Your task to perform on an android device: What is the news today? Image 0: 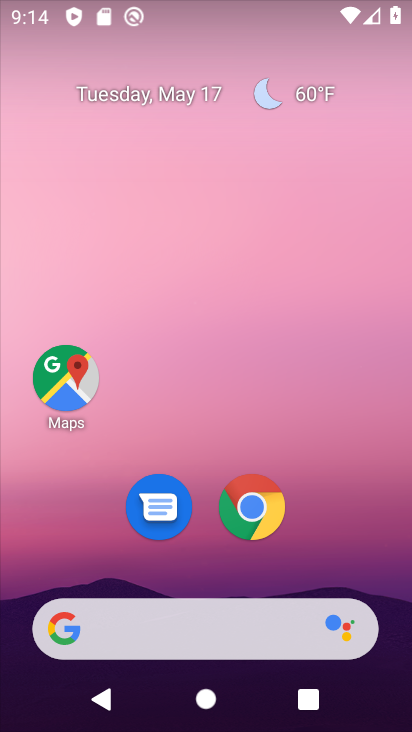
Step 0: drag from (371, 653) to (271, 258)
Your task to perform on an android device: What is the news today? Image 1: 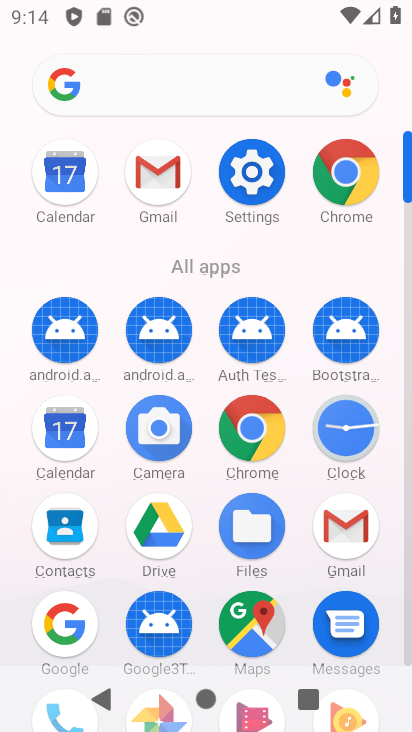
Step 1: press back button
Your task to perform on an android device: What is the news today? Image 2: 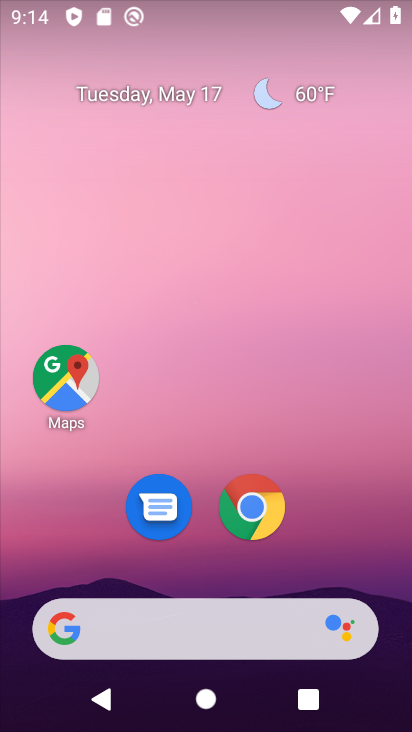
Step 2: drag from (9, 209) to (389, 372)
Your task to perform on an android device: What is the news today? Image 3: 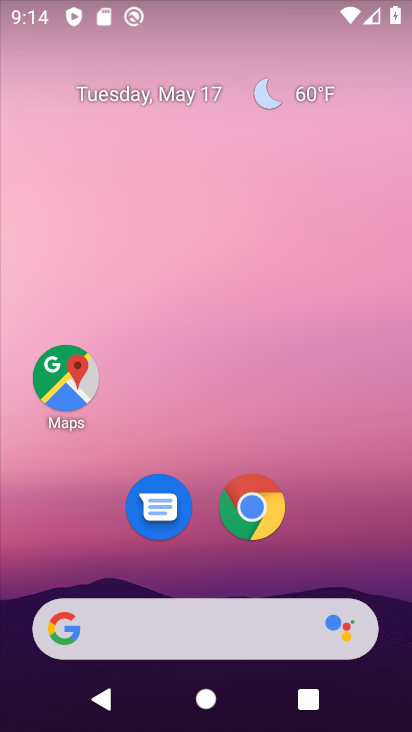
Step 3: drag from (70, 253) to (331, 386)
Your task to perform on an android device: What is the news today? Image 4: 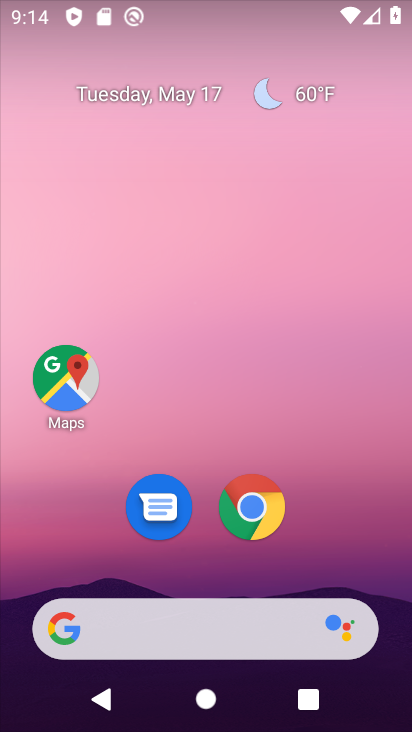
Step 4: drag from (33, 171) to (378, 350)
Your task to perform on an android device: What is the news today? Image 5: 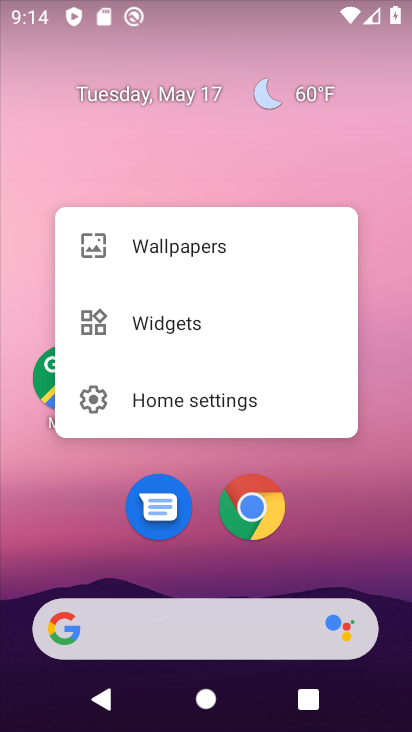
Step 5: drag from (13, 190) to (235, 333)
Your task to perform on an android device: What is the news today? Image 6: 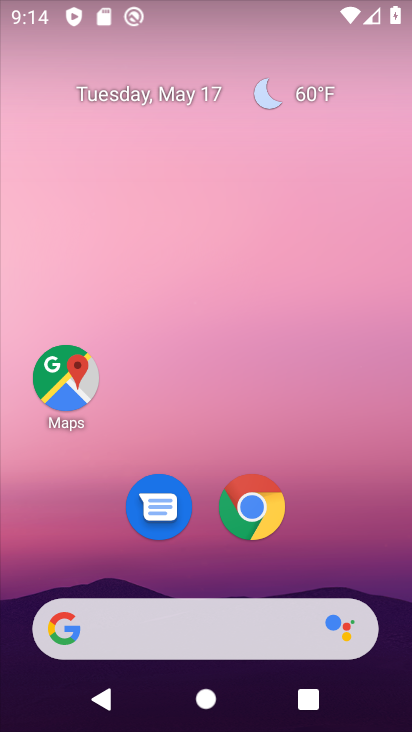
Step 6: click (95, 130)
Your task to perform on an android device: What is the news today? Image 7: 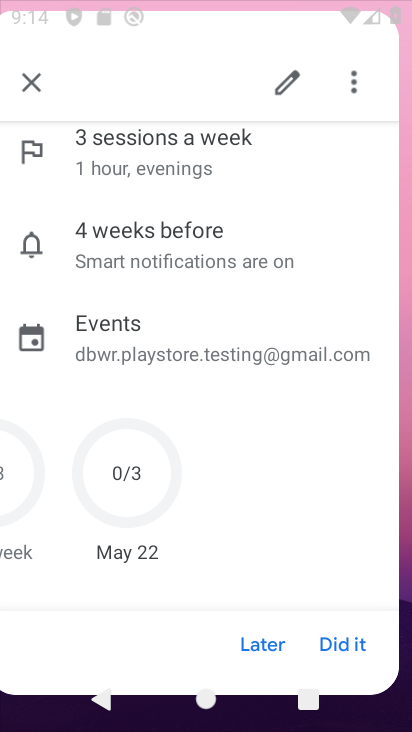
Step 7: drag from (16, 199) to (382, 475)
Your task to perform on an android device: What is the news today? Image 8: 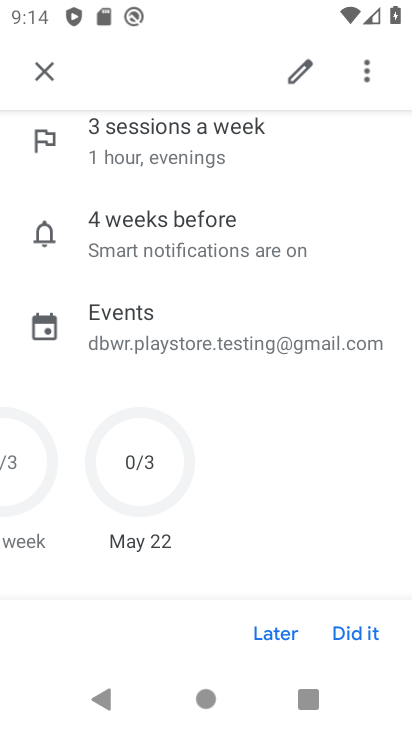
Step 8: click (50, 75)
Your task to perform on an android device: What is the news today? Image 9: 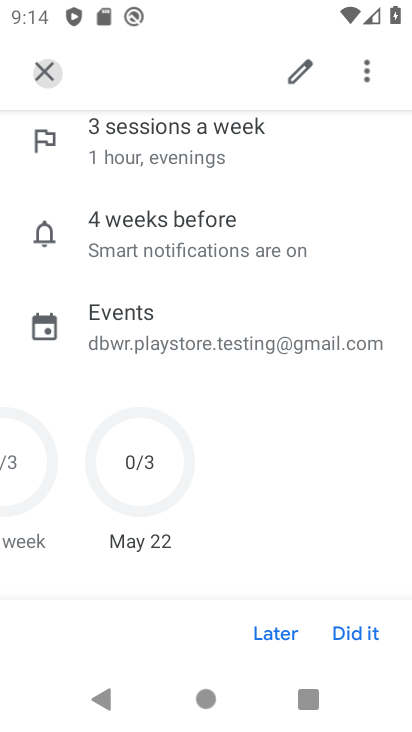
Step 9: click (50, 75)
Your task to perform on an android device: What is the news today? Image 10: 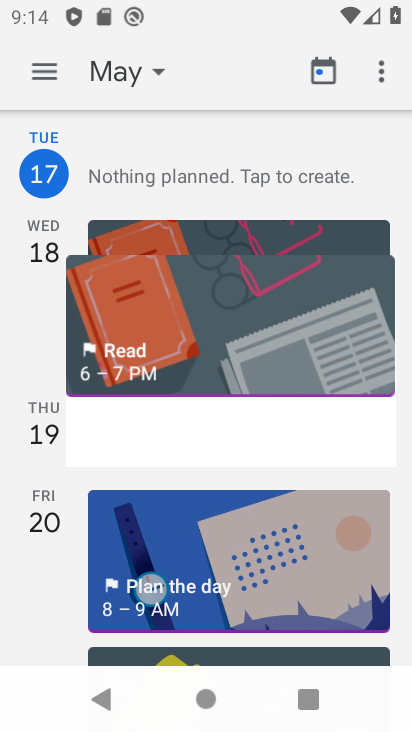
Step 10: click (50, 75)
Your task to perform on an android device: What is the news today? Image 11: 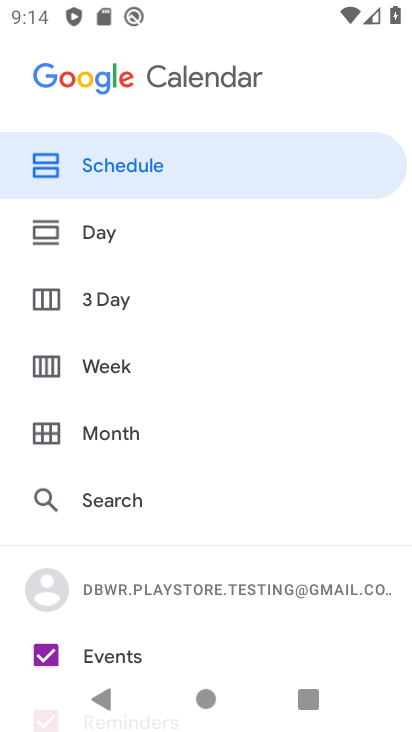
Step 11: press back button
Your task to perform on an android device: What is the news today? Image 12: 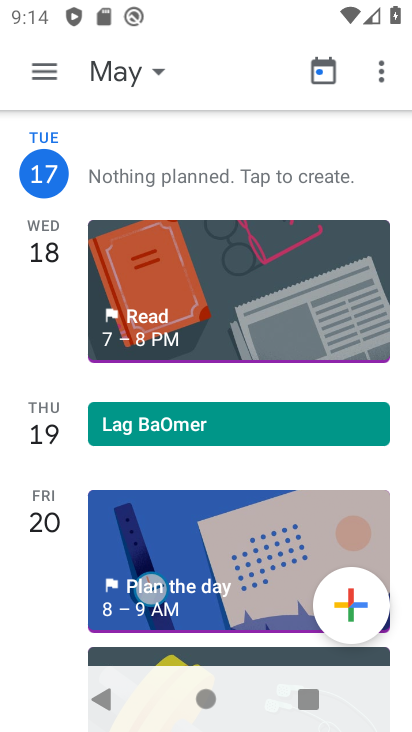
Step 12: press home button
Your task to perform on an android device: What is the news today? Image 13: 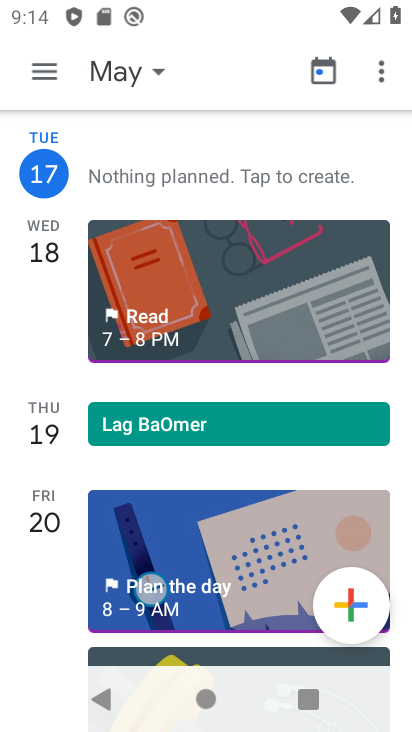
Step 13: press home button
Your task to perform on an android device: What is the news today? Image 14: 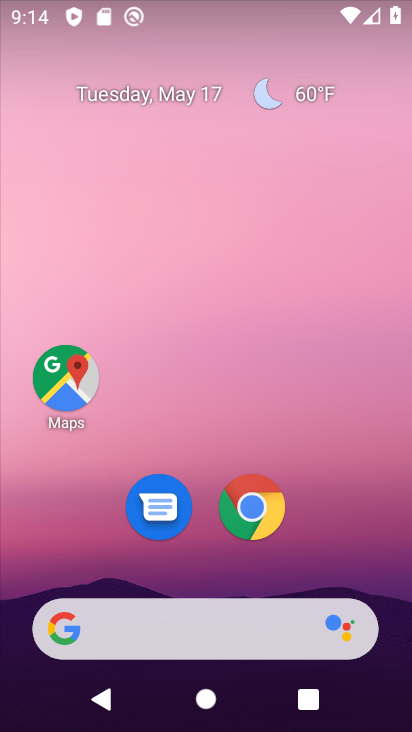
Step 14: drag from (3, 173) to (406, 385)
Your task to perform on an android device: What is the news today? Image 15: 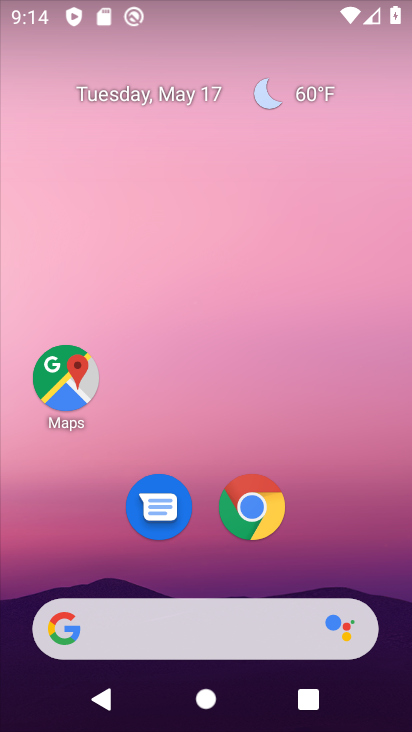
Step 15: drag from (0, 195) to (207, 439)
Your task to perform on an android device: What is the news today? Image 16: 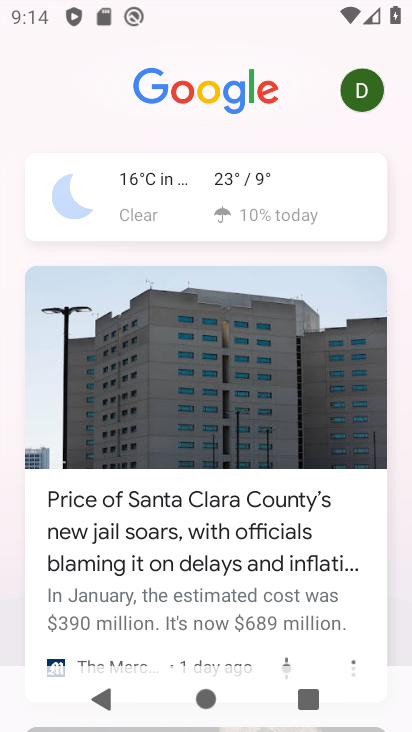
Step 16: drag from (211, 355) to (337, 517)
Your task to perform on an android device: What is the news today? Image 17: 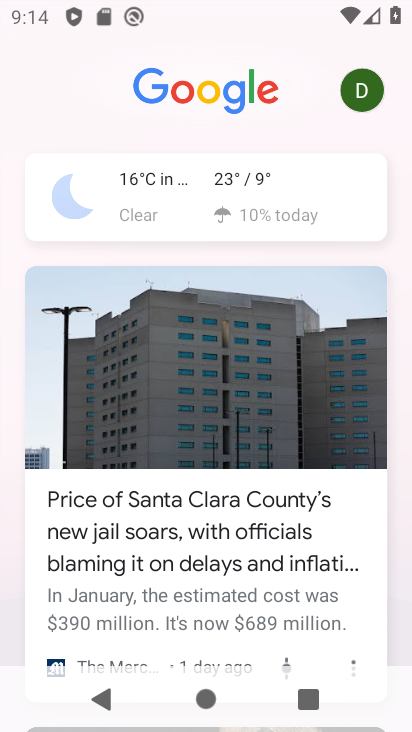
Step 17: drag from (173, 555) to (264, 296)
Your task to perform on an android device: What is the news today? Image 18: 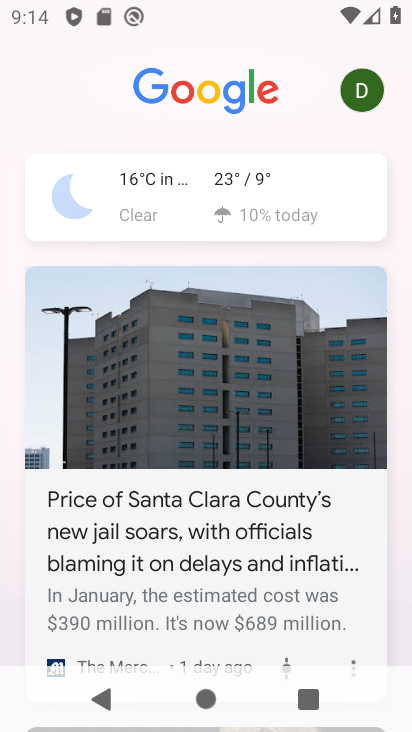
Step 18: drag from (211, 400) to (211, 226)
Your task to perform on an android device: What is the news today? Image 19: 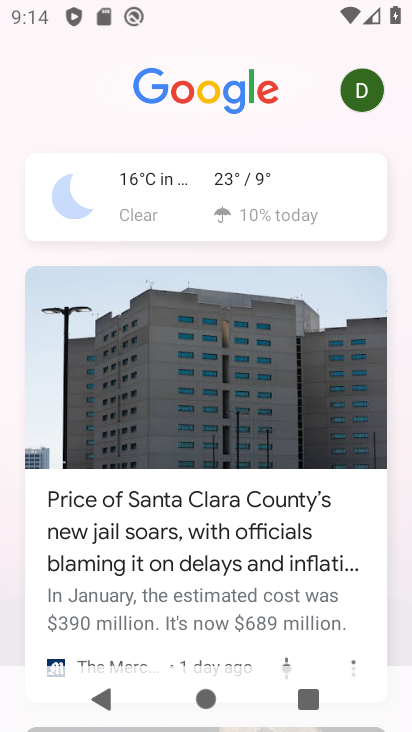
Step 19: drag from (147, 502) to (164, 218)
Your task to perform on an android device: What is the news today? Image 20: 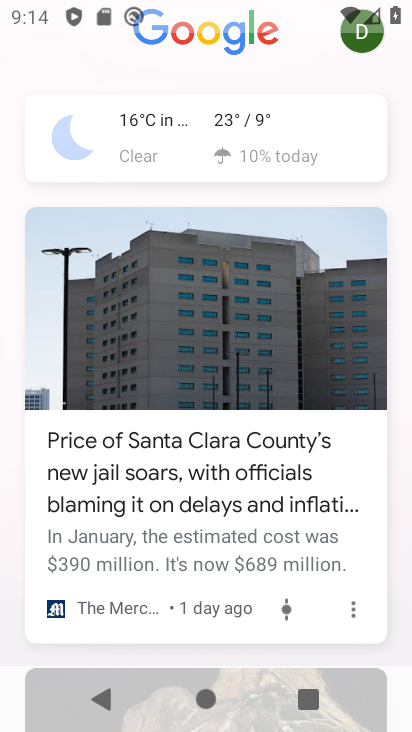
Step 20: drag from (193, 420) to (241, 176)
Your task to perform on an android device: What is the news today? Image 21: 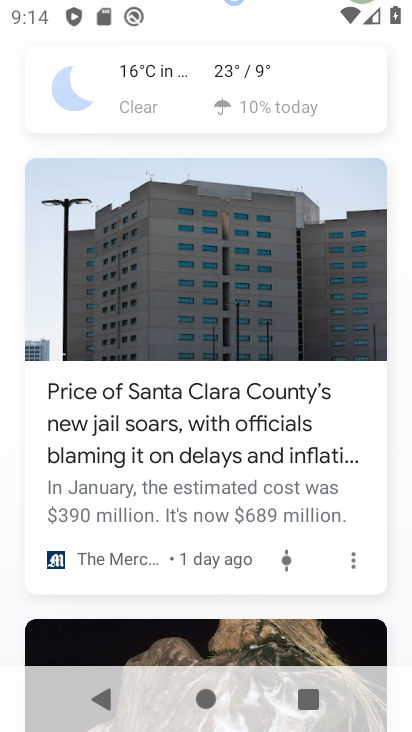
Step 21: drag from (230, 478) to (251, 200)
Your task to perform on an android device: What is the news today? Image 22: 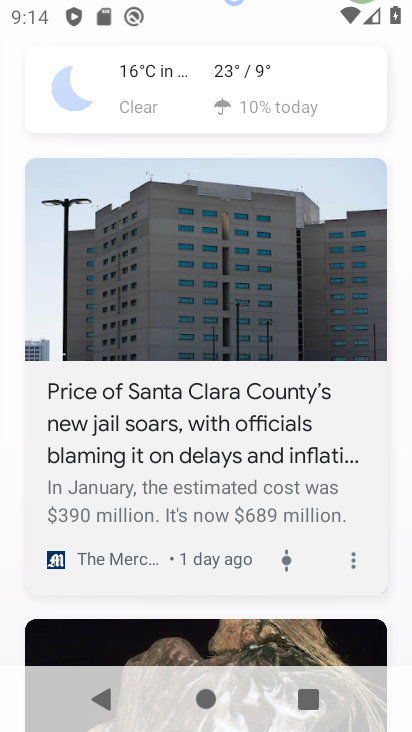
Step 22: drag from (220, 453) to (174, 151)
Your task to perform on an android device: What is the news today? Image 23: 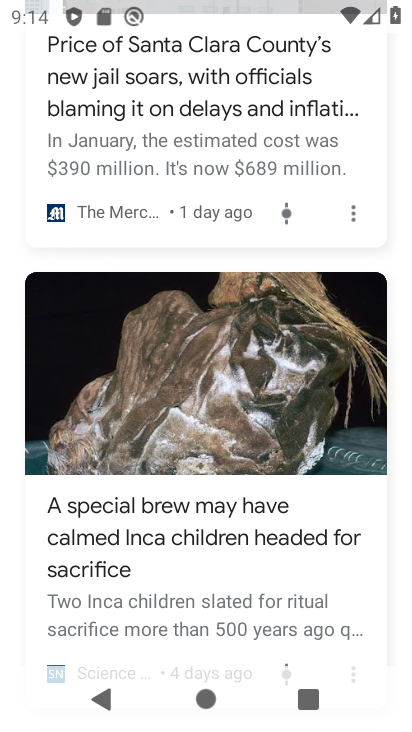
Step 23: drag from (179, 414) to (179, 181)
Your task to perform on an android device: What is the news today? Image 24: 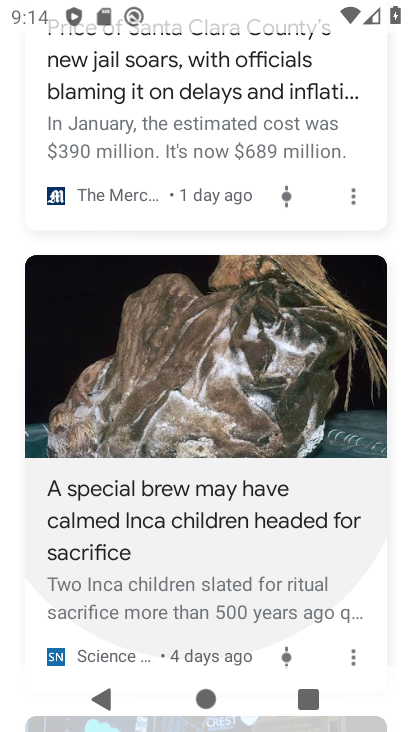
Step 24: drag from (196, 445) to (217, 209)
Your task to perform on an android device: What is the news today? Image 25: 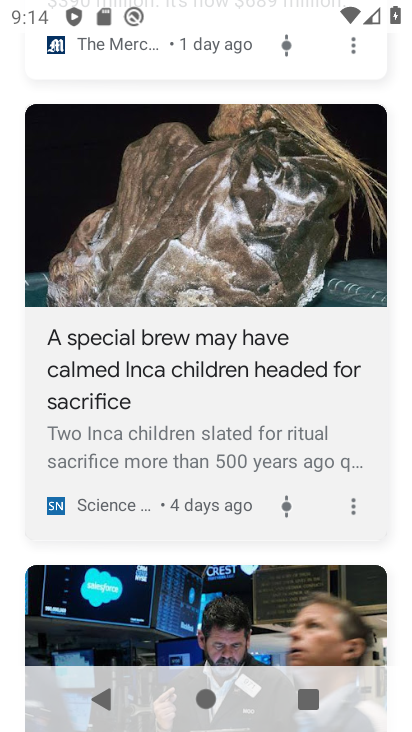
Step 25: click (232, 221)
Your task to perform on an android device: What is the news today? Image 26: 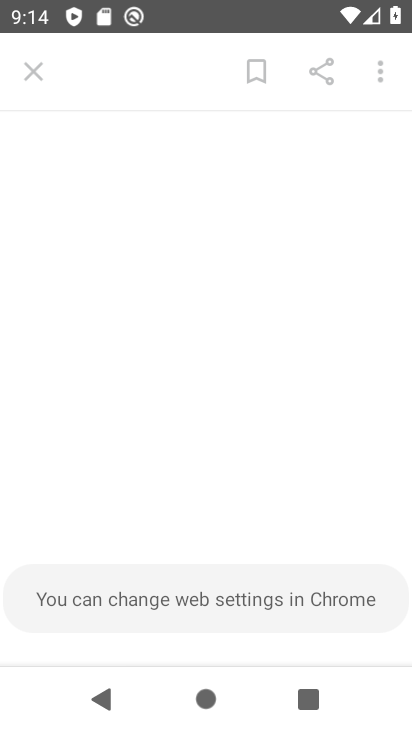
Step 26: task complete